Your task to perform on an android device: Go to eBay Image 0: 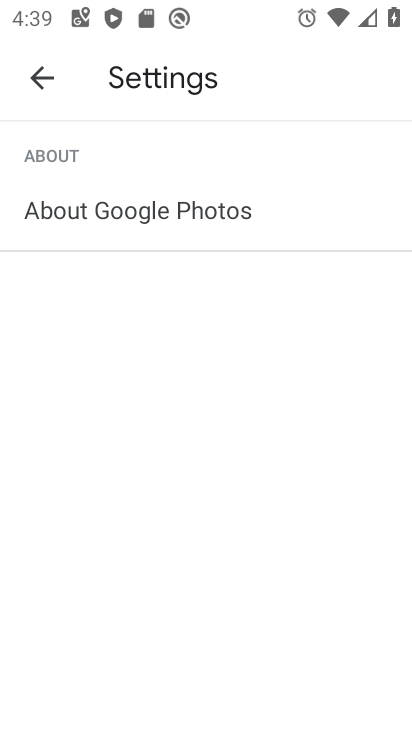
Step 0: press home button
Your task to perform on an android device: Go to eBay Image 1: 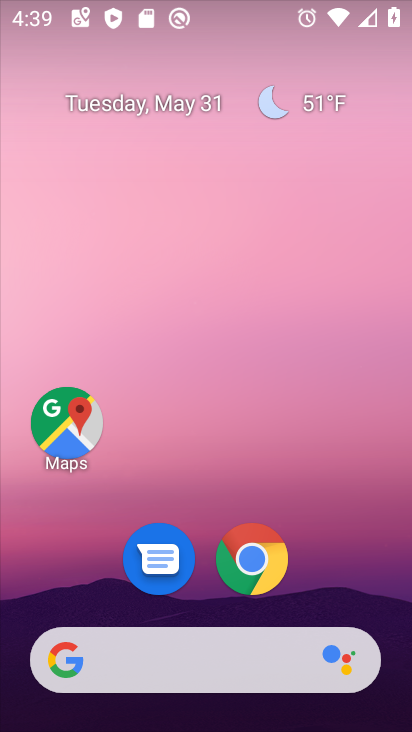
Step 1: click (254, 551)
Your task to perform on an android device: Go to eBay Image 2: 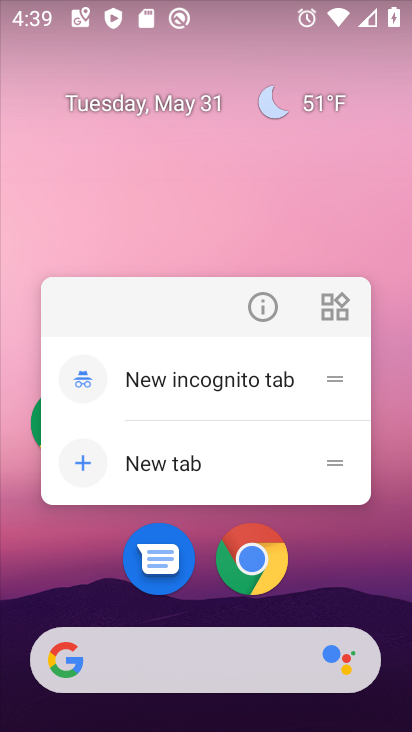
Step 2: click (254, 551)
Your task to perform on an android device: Go to eBay Image 3: 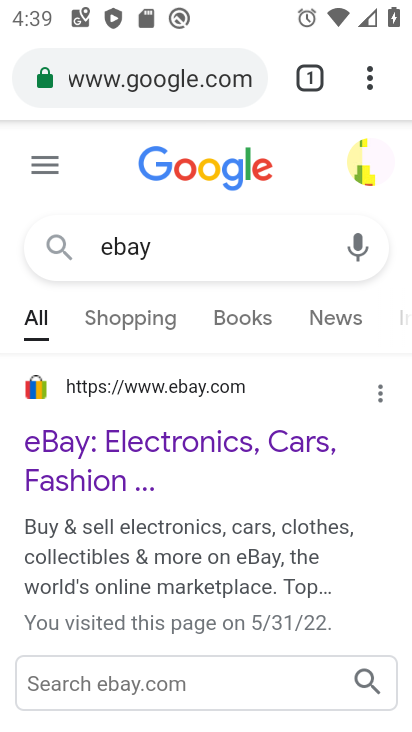
Step 3: click (248, 434)
Your task to perform on an android device: Go to eBay Image 4: 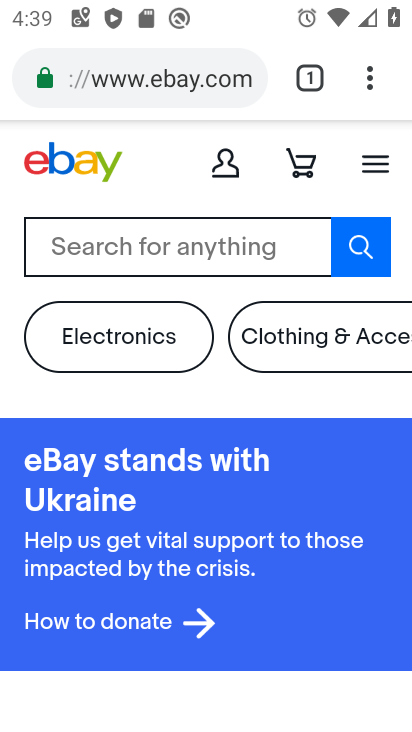
Step 4: task complete